Your task to perform on an android device: Go to eBay Image 0: 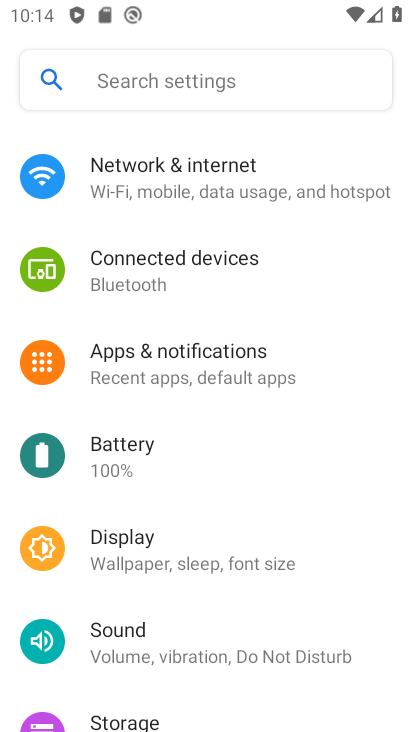
Step 0: click (216, 474)
Your task to perform on an android device: Go to eBay Image 1: 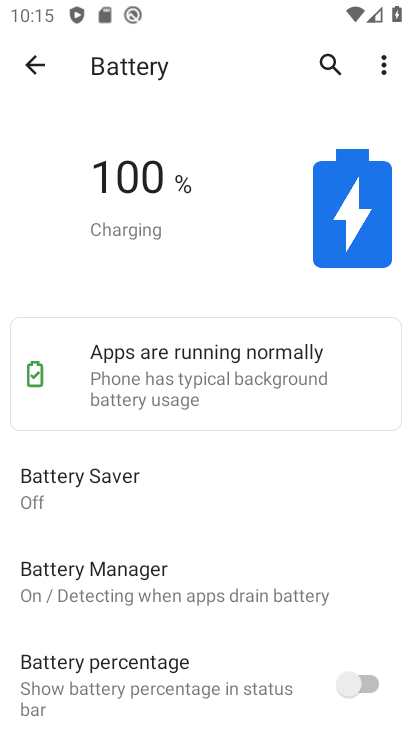
Step 1: drag from (164, 564) to (320, 148)
Your task to perform on an android device: Go to eBay Image 2: 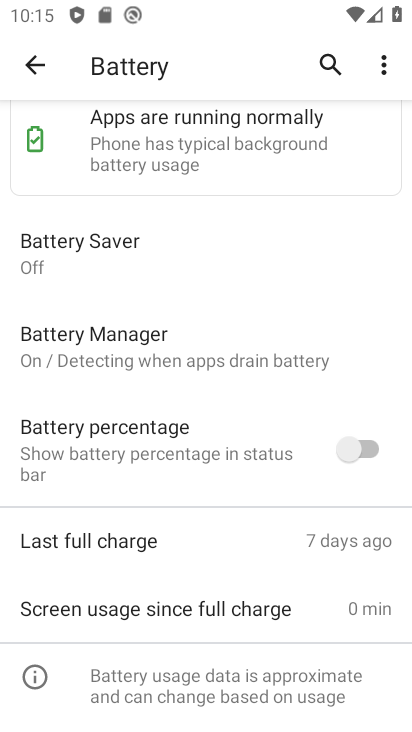
Step 2: click (320, 209)
Your task to perform on an android device: Go to eBay Image 3: 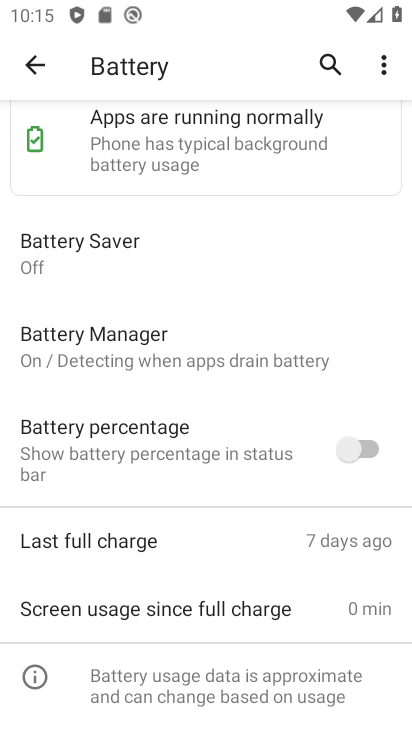
Step 3: drag from (296, 151) to (263, 696)
Your task to perform on an android device: Go to eBay Image 4: 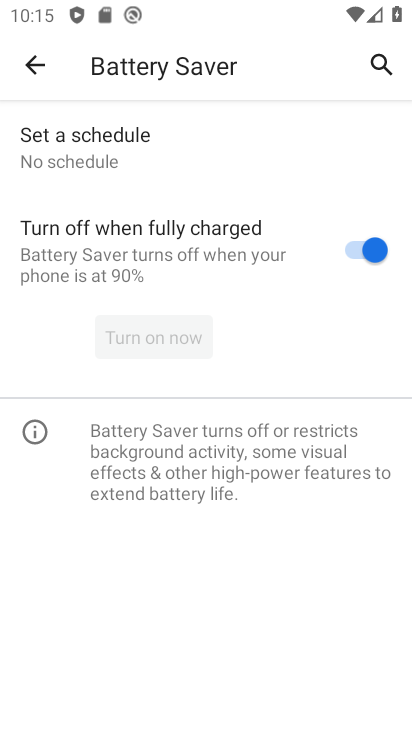
Step 4: click (26, 79)
Your task to perform on an android device: Go to eBay Image 5: 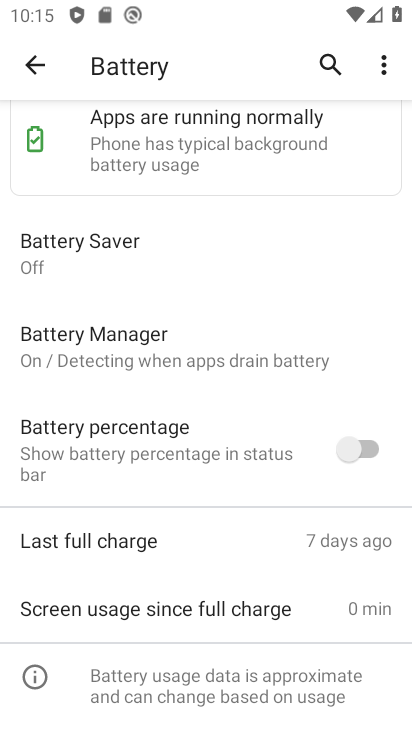
Step 5: press home button
Your task to perform on an android device: Go to eBay Image 6: 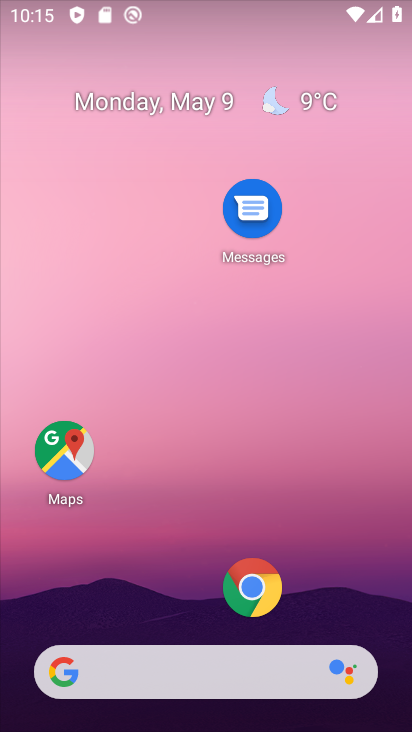
Step 6: drag from (194, 543) to (291, 215)
Your task to perform on an android device: Go to eBay Image 7: 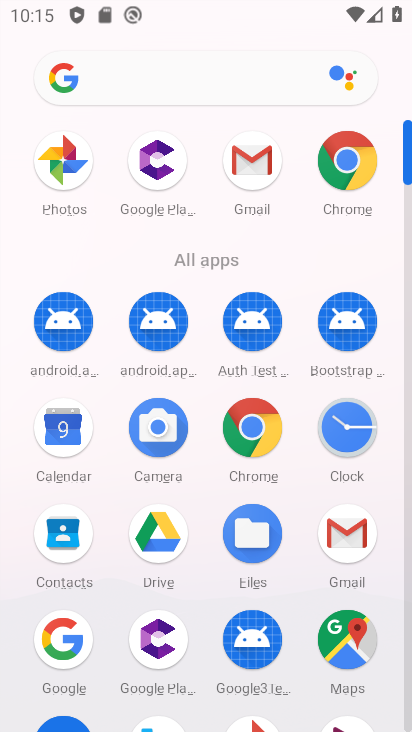
Step 7: click (253, 429)
Your task to perform on an android device: Go to eBay Image 8: 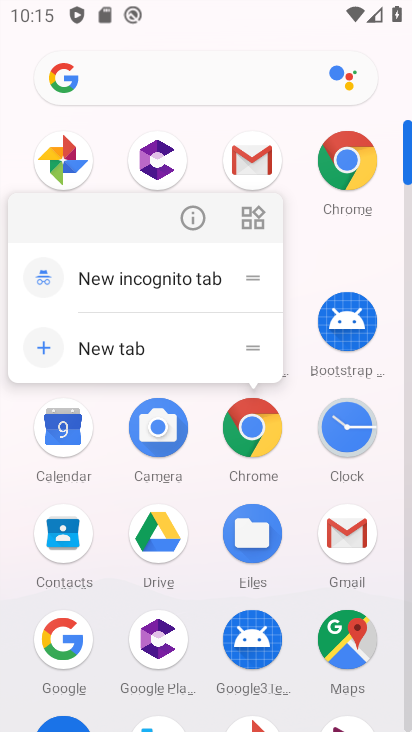
Step 8: click (187, 217)
Your task to perform on an android device: Go to eBay Image 9: 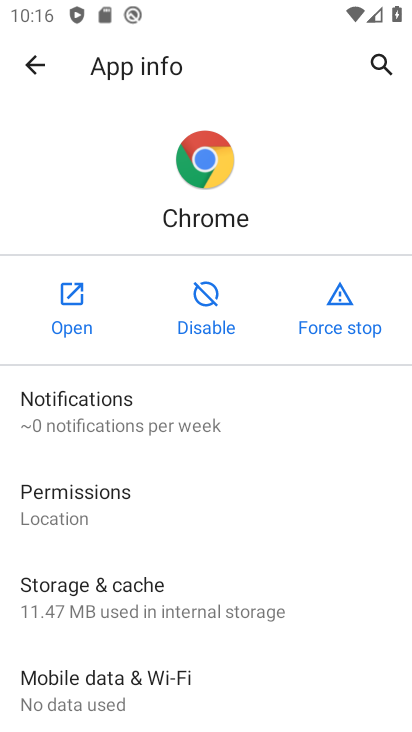
Step 9: click (41, 296)
Your task to perform on an android device: Go to eBay Image 10: 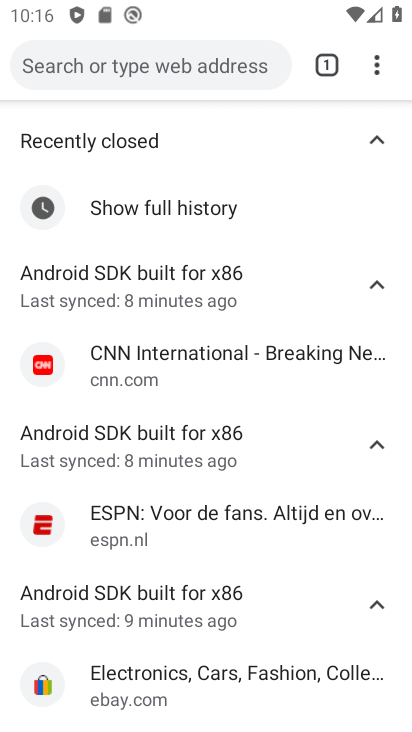
Step 10: drag from (194, 506) to (282, 209)
Your task to perform on an android device: Go to eBay Image 11: 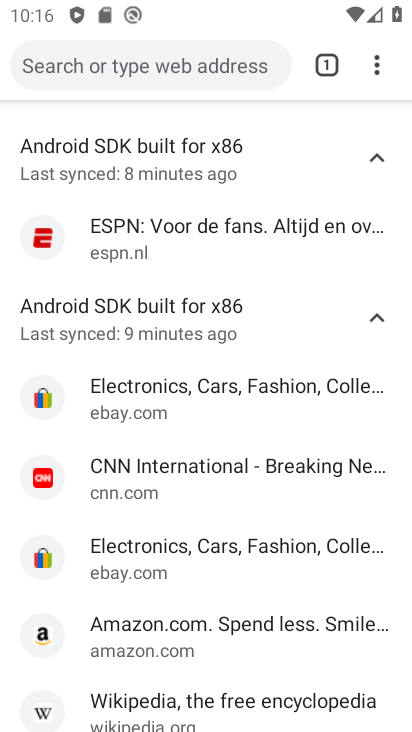
Step 11: click (210, 67)
Your task to perform on an android device: Go to eBay Image 12: 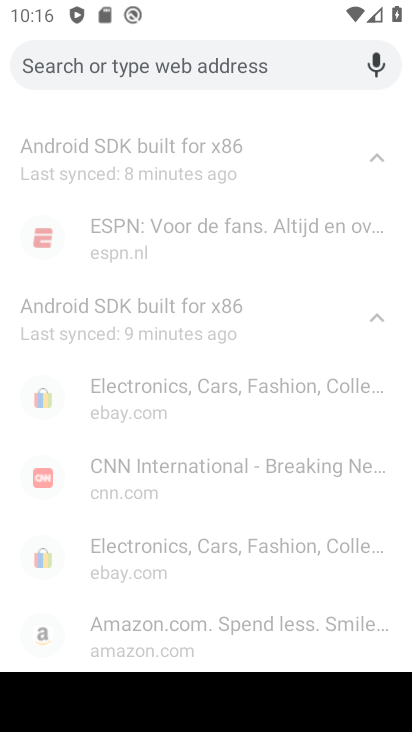
Step 12: type "ebay"
Your task to perform on an android device: Go to eBay Image 13: 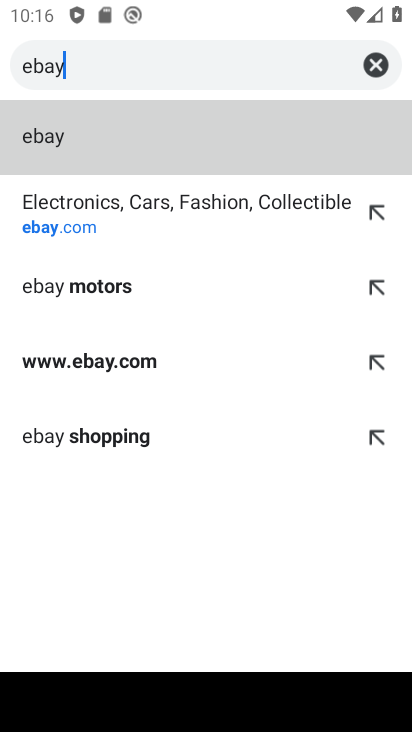
Step 13: click (61, 125)
Your task to perform on an android device: Go to eBay Image 14: 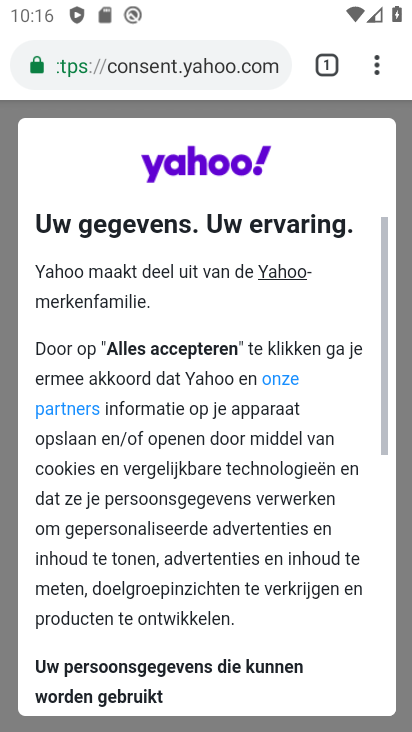
Step 14: drag from (214, 615) to (243, 281)
Your task to perform on an android device: Go to eBay Image 15: 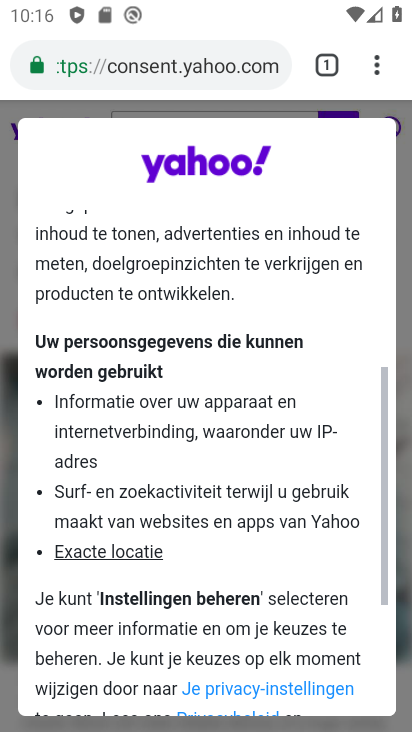
Step 15: drag from (217, 582) to (260, 336)
Your task to perform on an android device: Go to eBay Image 16: 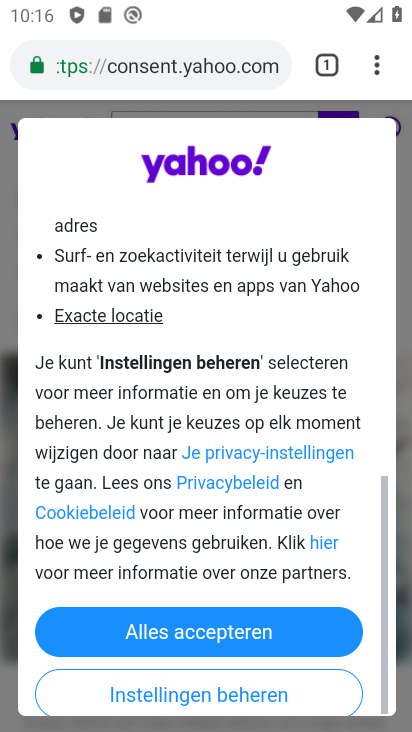
Step 16: drag from (191, 603) to (253, 376)
Your task to perform on an android device: Go to eBay Image 17: 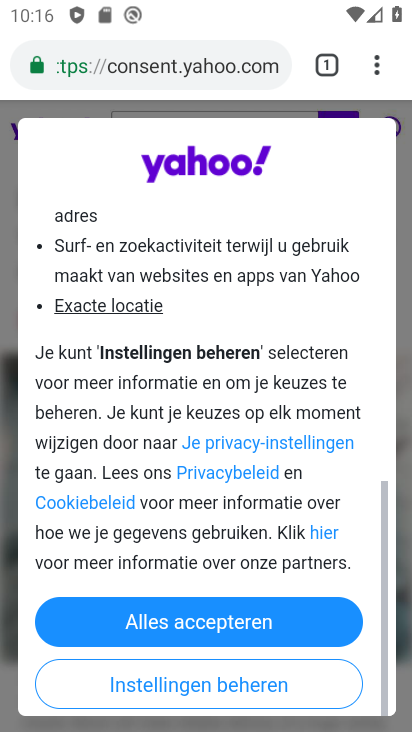
Step 17: click (197, 630)
Your task to perform on an android device: Go to eBay Image 18: 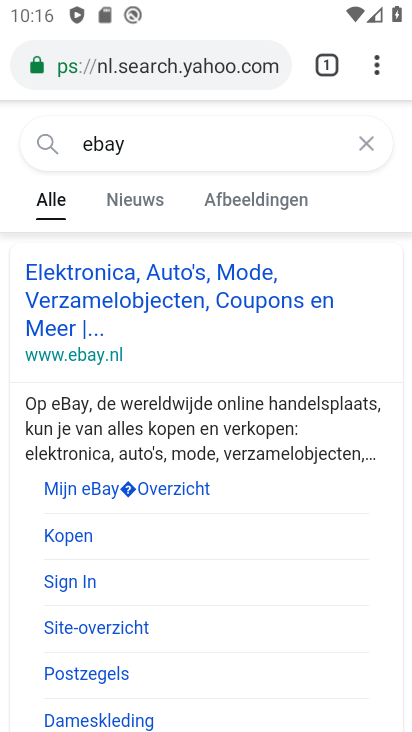
Step 18: task complete